Your task to perform on an android device: turn notification dots off Image 0: 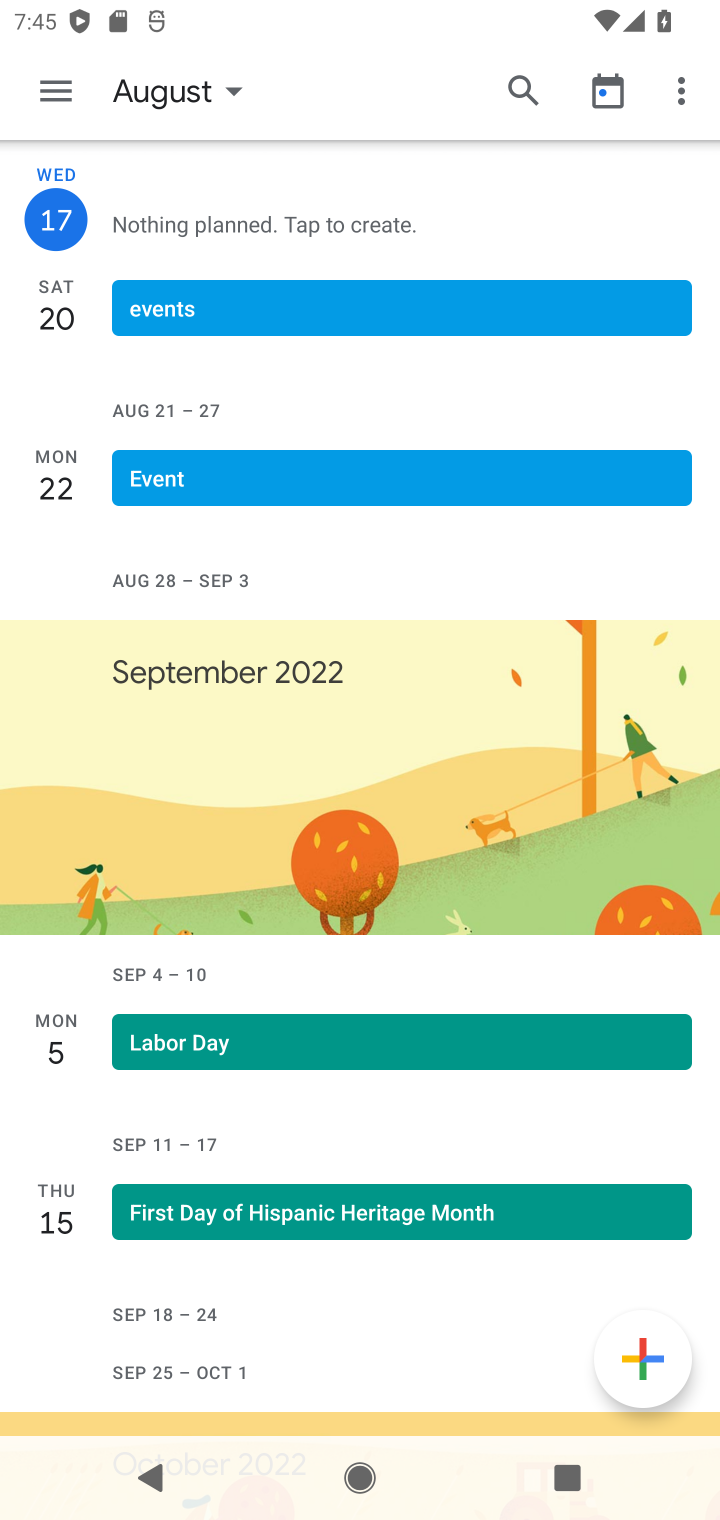
Step 0: press home button
Your task to perform on an android device: turn notification dots off Image 1: 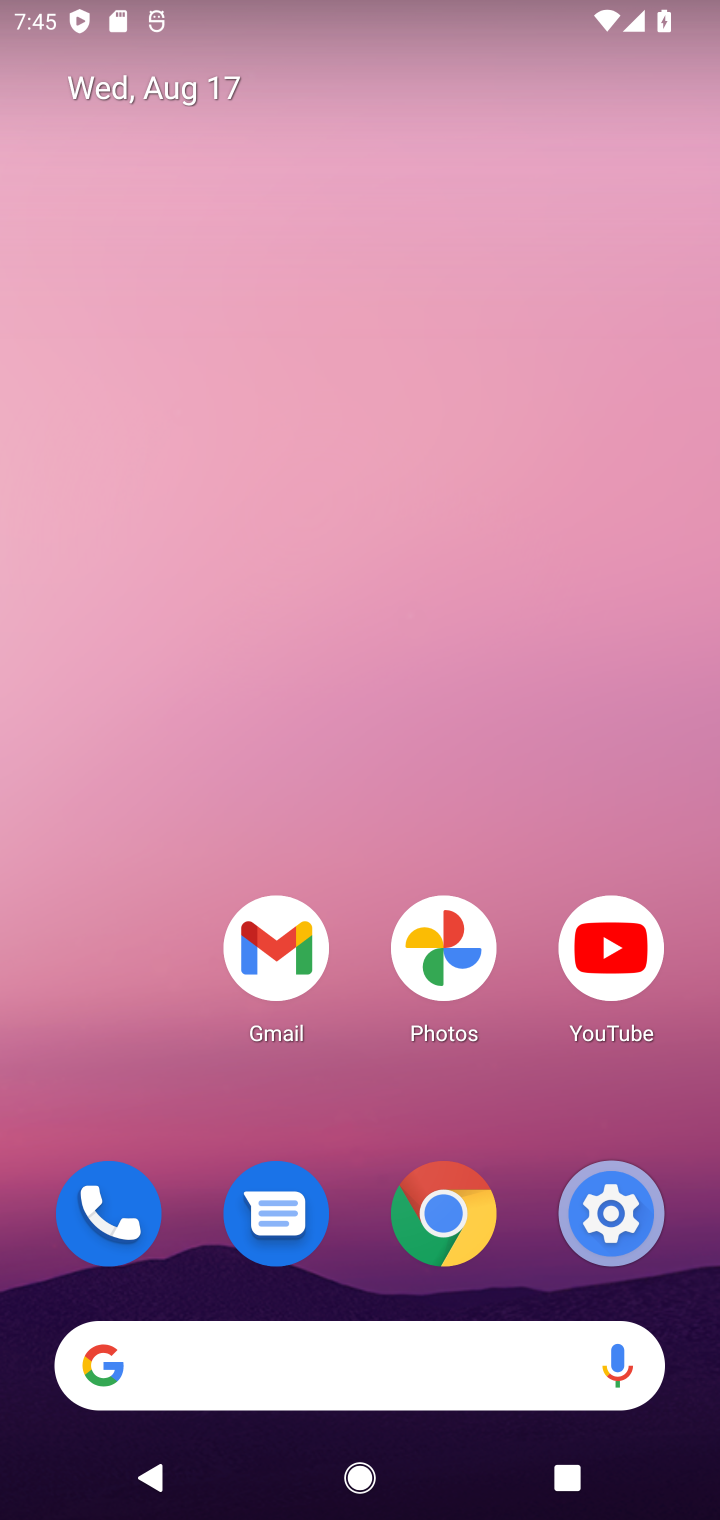
Step 1: click (617, 1239)
Your task to perform on an android device: turn notification dots off Image 2: 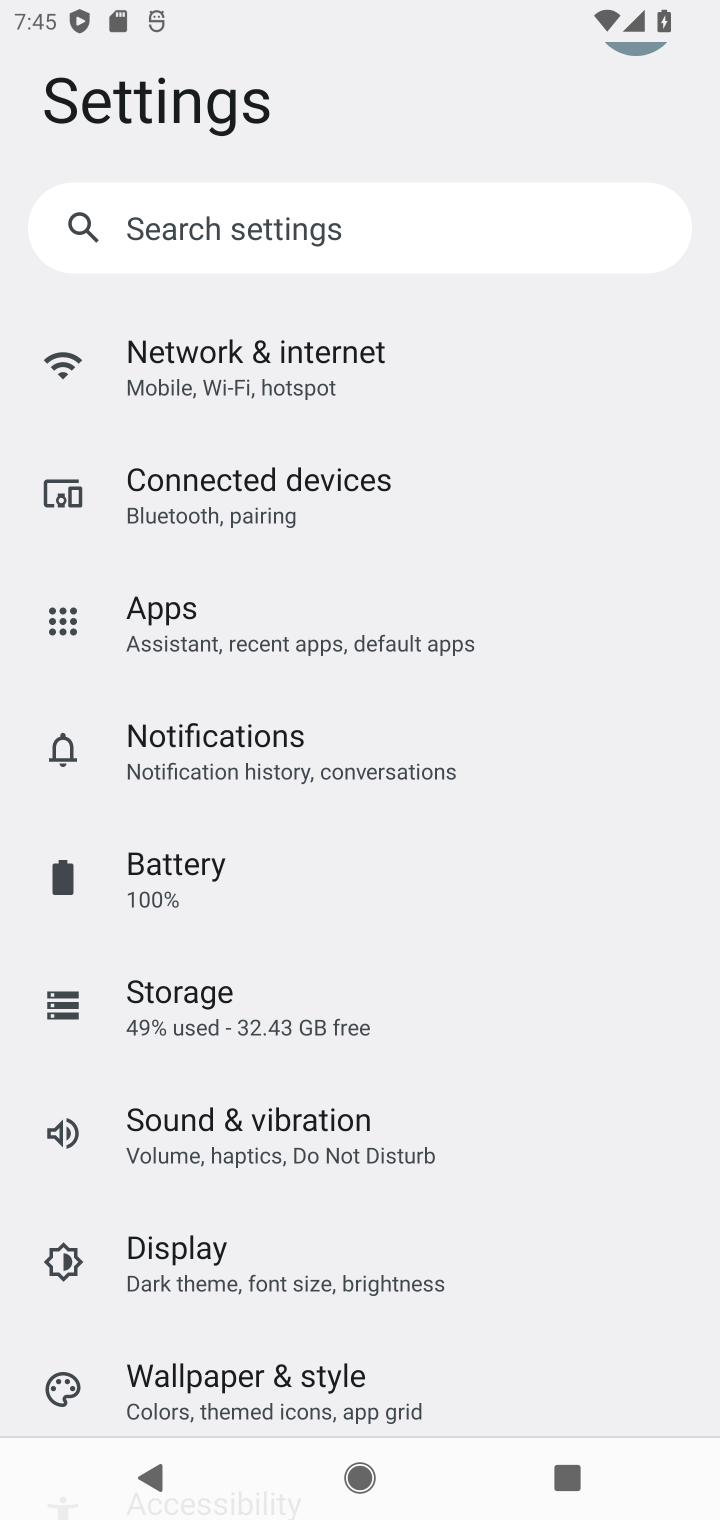
Step 2: click (313, 730)
Your task to perform on an android device: turn notification dots off Image 3: 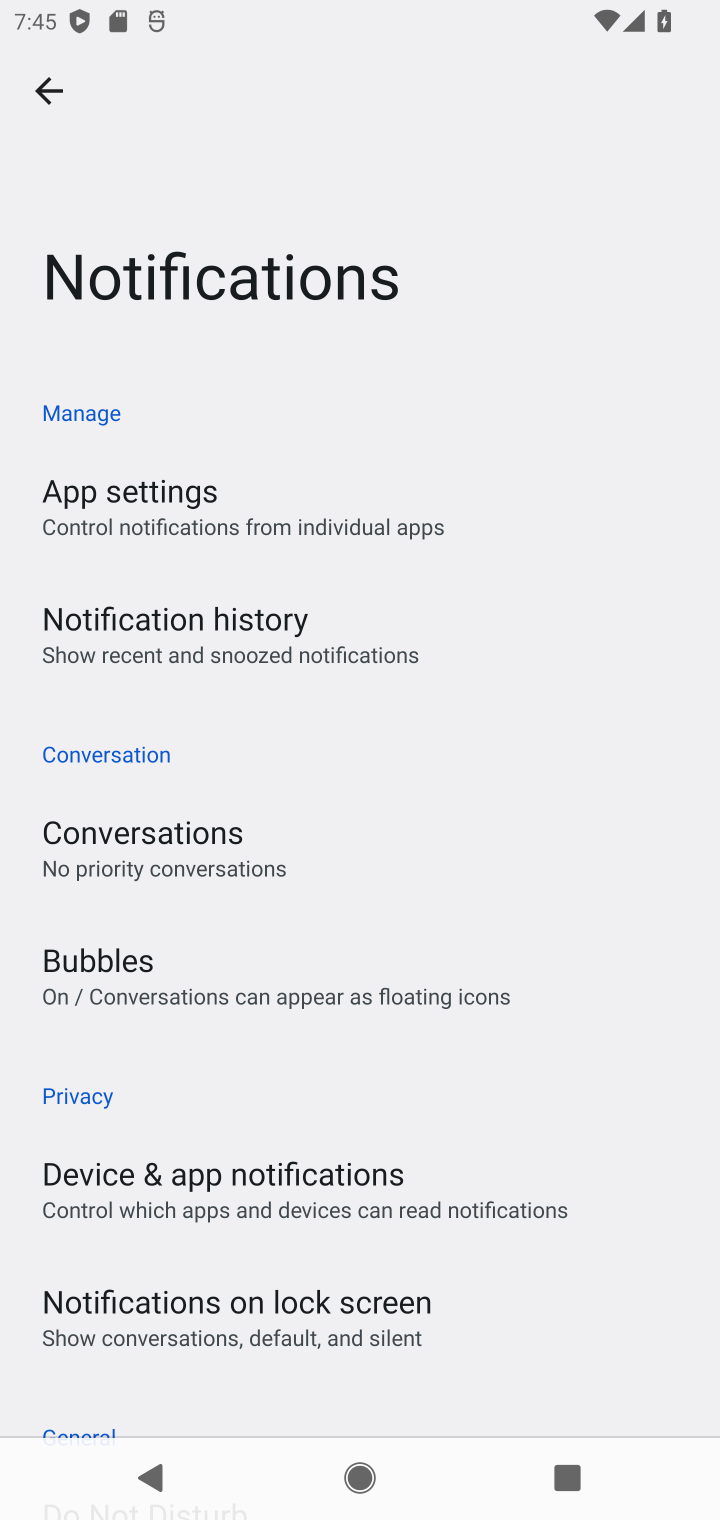
Step 3: task complete